Your task to perform on an android device: Open ESPN.com Image 0: 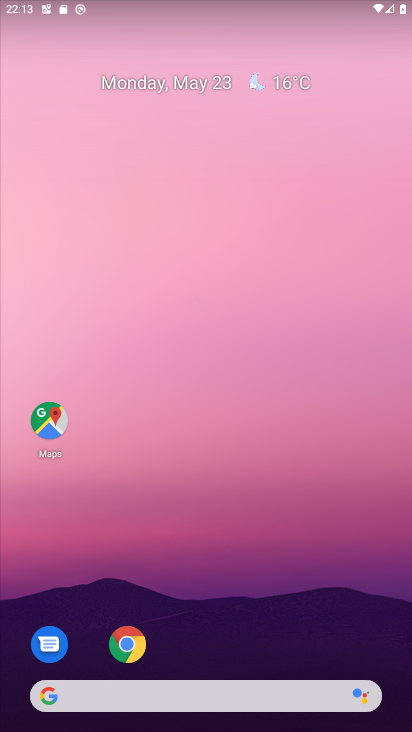
Step 0: press home button
Your task to perform on an android device: Open ESPN.com Image 1: 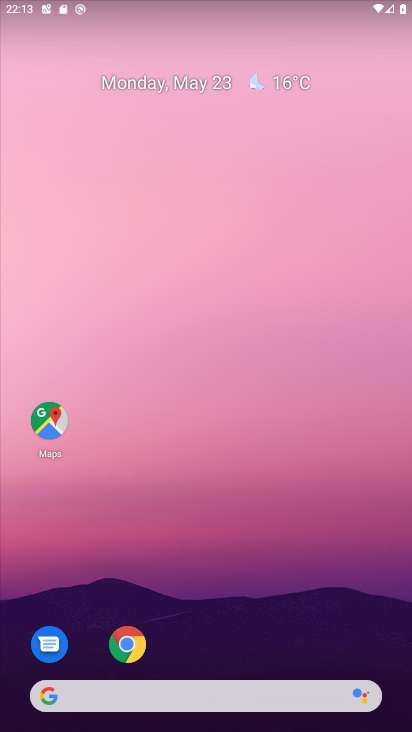
Step 1: click (122, 639)
Your task to perform on an android device: Open ESPN.com Image 2: 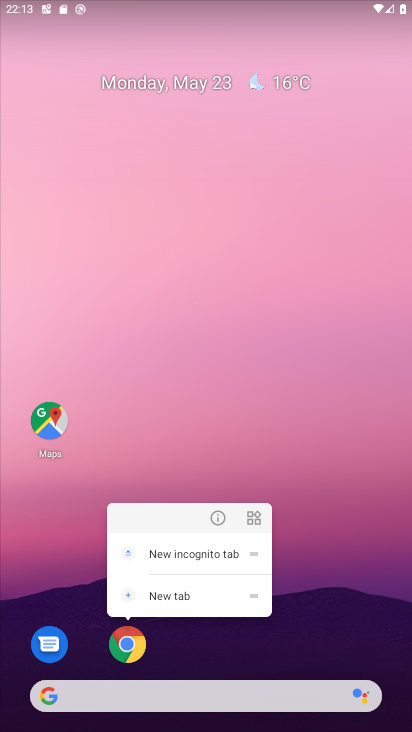
Step 2: click (127, 638)
Your task to perform on an android device: Open ESPN.com Image 3: 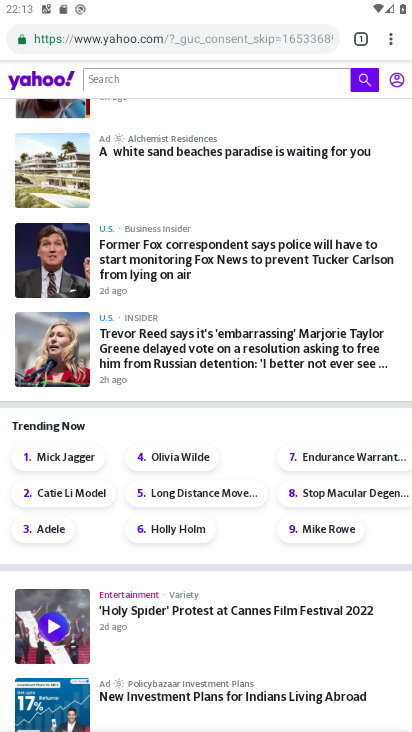
Step 3: click (361, 33)
Your task to perform on an android device: Open ESPN.com Image 4: 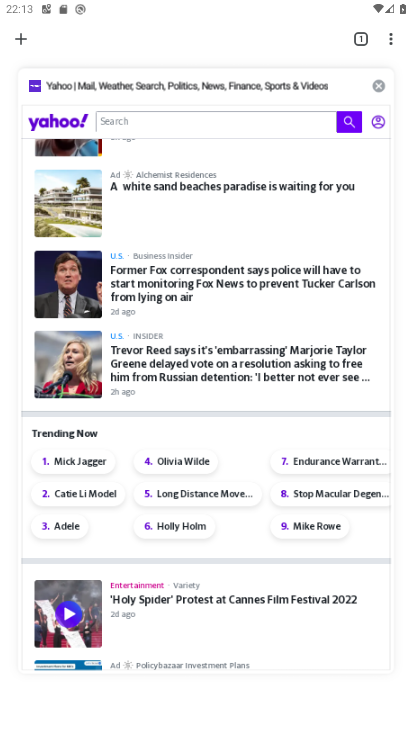
Step 4: click (380, 80)
Your task to perform on an android device: Open ESPN.com Image 5: 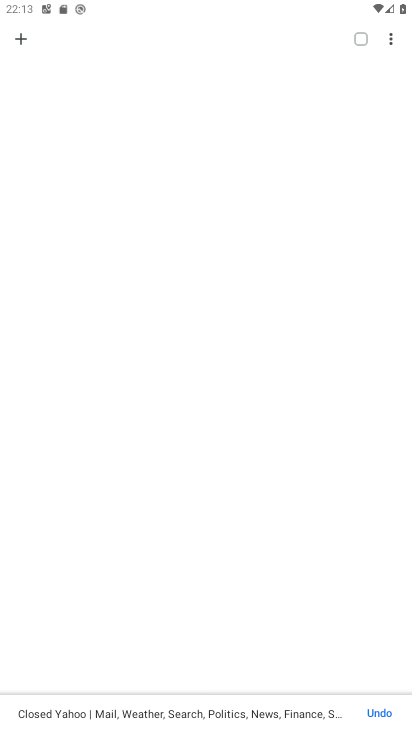
Step 5: click (24, 40)
Your task to perform on an android device: Open ESPN.com Image 6: 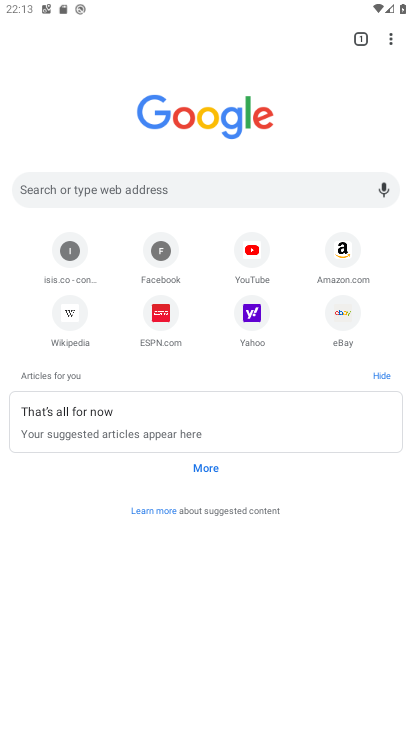
Step 6: click (158, 312)
Your task to perform on an android device: Open ESPN.com Image 7: 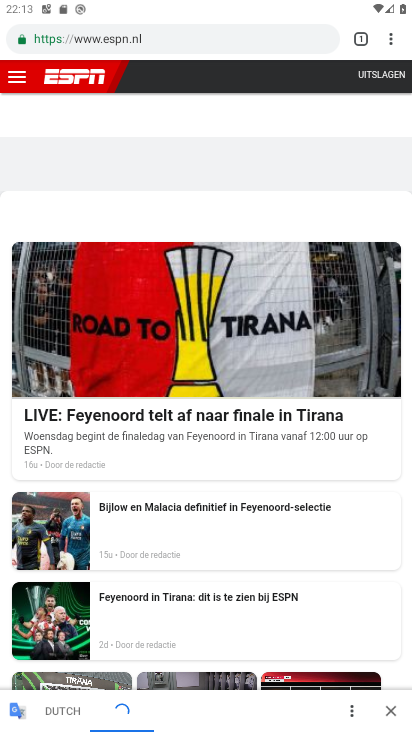
Step 7: drag from (216, 614) to (199, 141)
Your task to perform on an android device: Open ESPN.com Image 8: 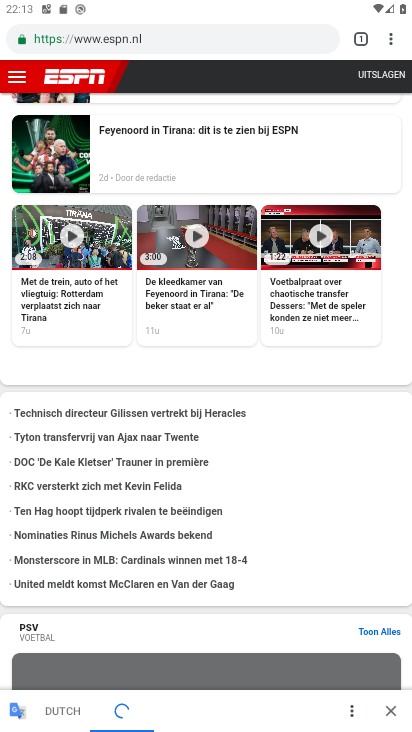
Step 8: drag from (204, 595) to (187, 80)
Your task to perform on an android device: Open ESPN.com Image 9: 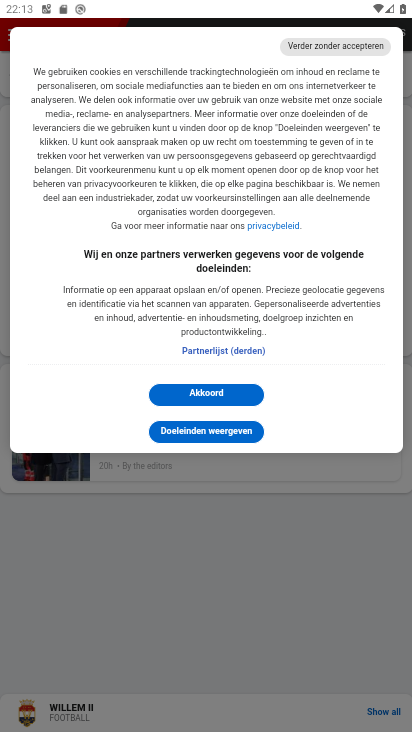
Step 9: click (203, 391)
Your task to perform on an android device: Open ESPN.com Image 10: 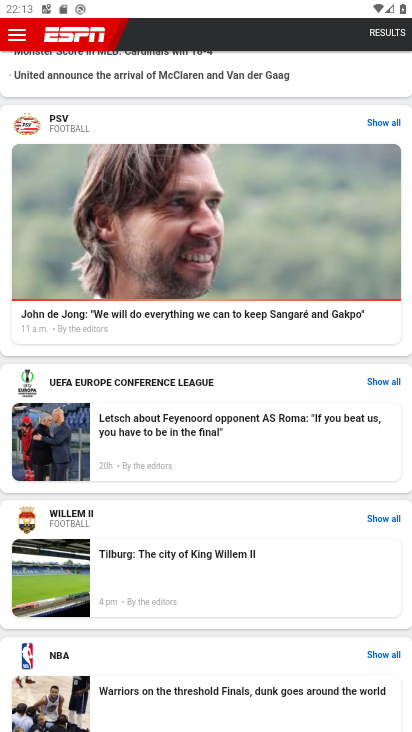
Step 10: task complete